Your task to perform on an android device: turn on notifications settings in the gmail app Image 0: 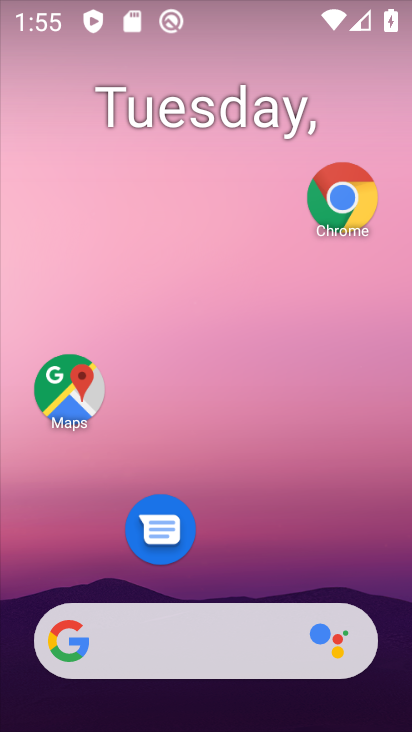
Step 0: drag from (225, 405) to (264, 89)
Your task to perform on an android device: turn on notifications settings in the gmail app Image 1: 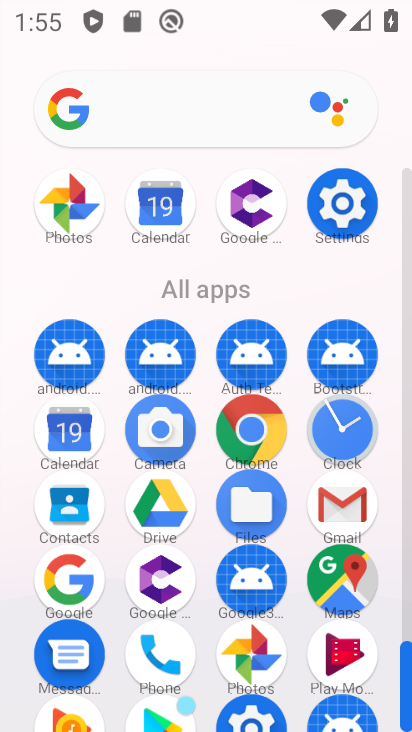
Step 1: click (345, 506)
Your task to perform on an android device: turn on notifications settings in the gmail app Image 2: 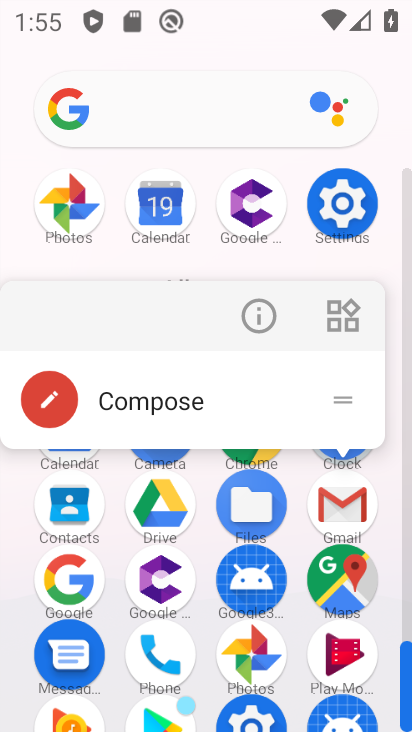
Step 2: click (251, 307)
Your task to perform on an android device: turn on notifications settings in the gmail app Image 3: 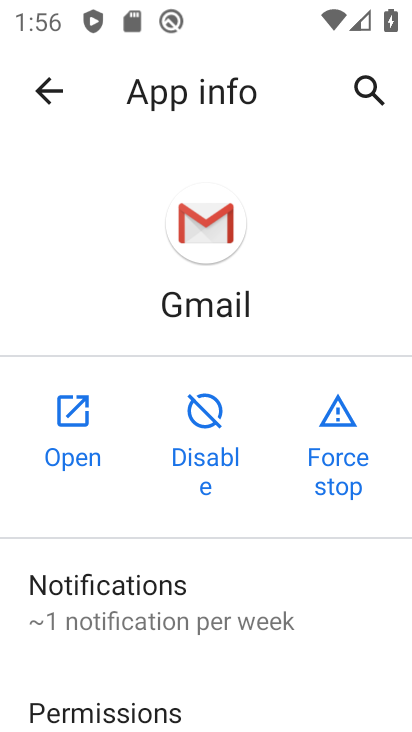
Step 3: click (141, 573)
Your task to perform on an android device: turn on notifications settings in the gmail app Image 4: 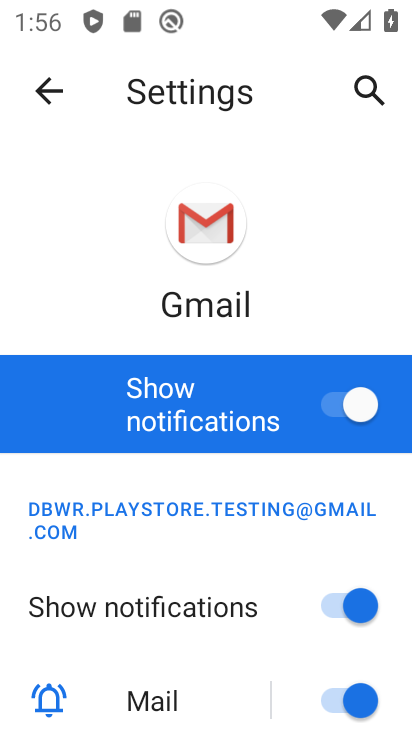
Step 4: task complete